Your task to perform on an android device: toggle show notifications on the lock screen Image 0: 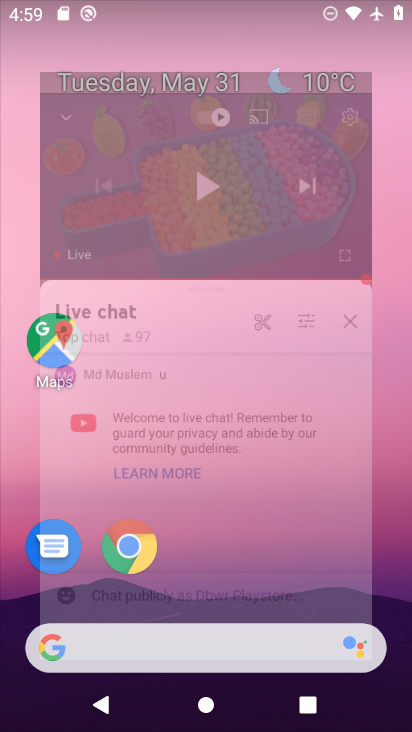
Step 0: drag from (276, 563) to (142, 4)
Your task to perform on an android device: toggle show notifications on the lock screen Image 1: 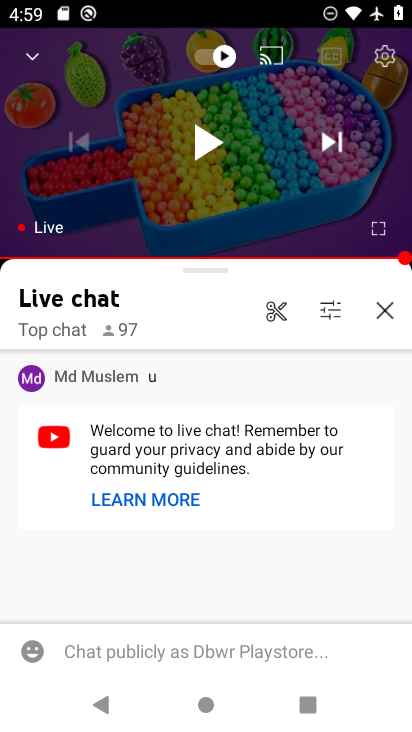
Step 1: press home button
Your task to perform on an android device: toggle show notifications on the lock screen Image 2: 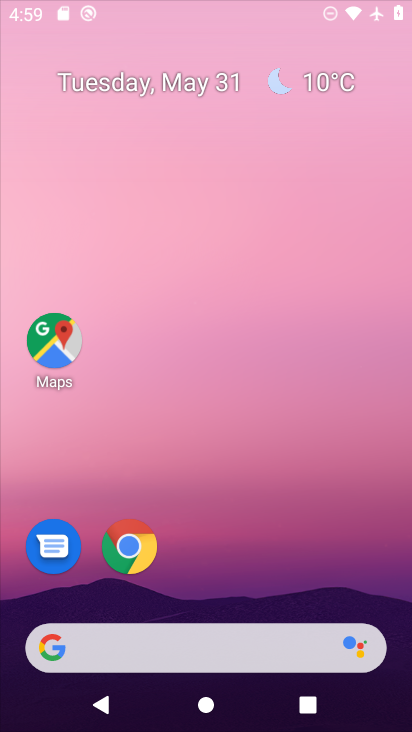
Step 2: drag from (308, 543) to (156, 25)
Your task to perform on an android device: toggle show notifications on the lock screen Image 3: 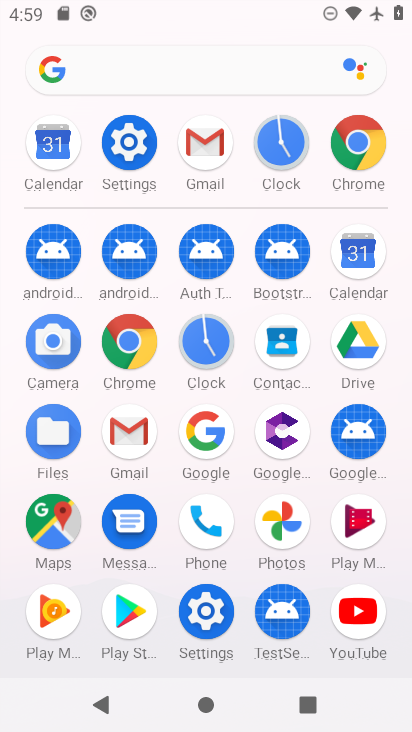
Step 3: click (143, 165)
Your task to perform on an android device: toggle show notifications on the lock screen Image 4: 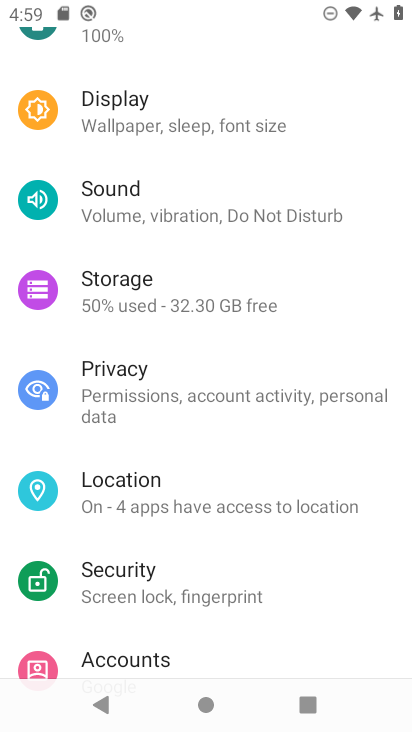
Step 4: drag from (220, 132) to (212, 615)
Your task to perform on an android device: toggle show notifications on the lock screen Image 5: 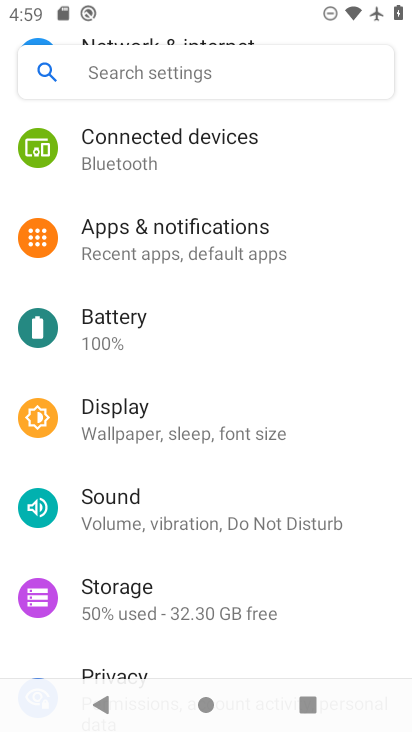
Step 5: click (147, 239)
Your task to perform on an android device: toggle show notifications on the lock screen Image 6: 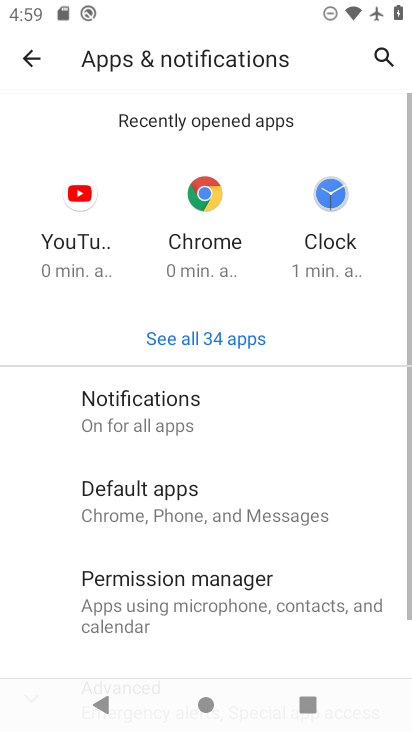
Step 6: click (147, 396)
Your task to perform on an android device: toggle show notifications on the lock screen Image 7: 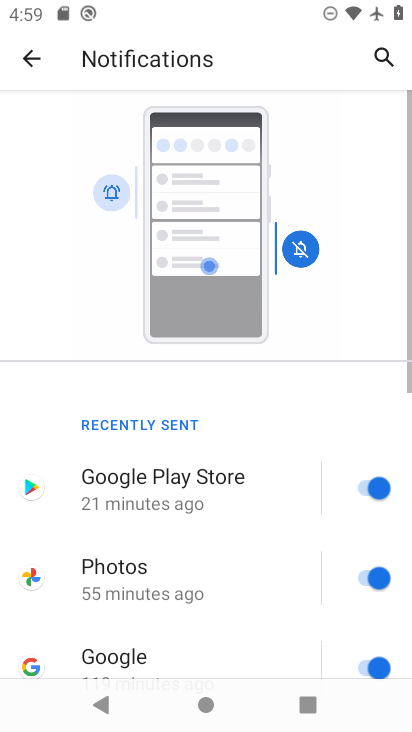
Step 7: drag from (165, 609) to (143, 203)
Your task to perform on an android device: toggle show notifications on the lock screen Image 8: 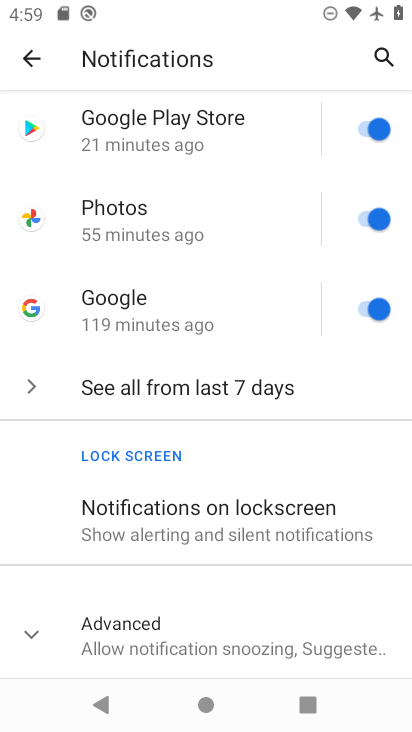
Step 8: click (174, 536)
Your task to perform on an android device: toggle show notifications on the lock screen Image 9: 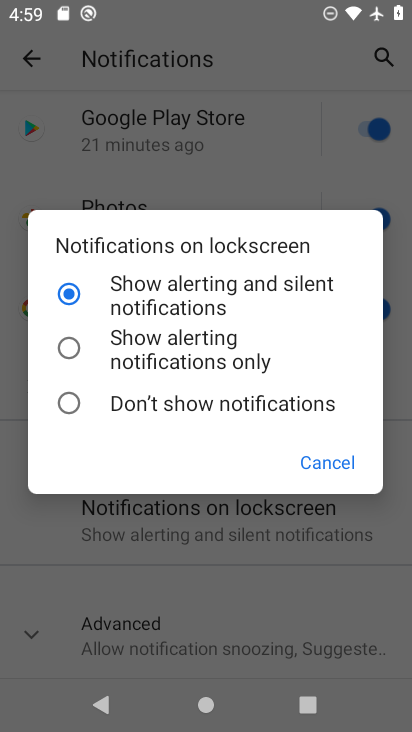
Step 9: click (146, 399)
Your task to perform on an android device: toggle show notifications on the lock screen Image 10: 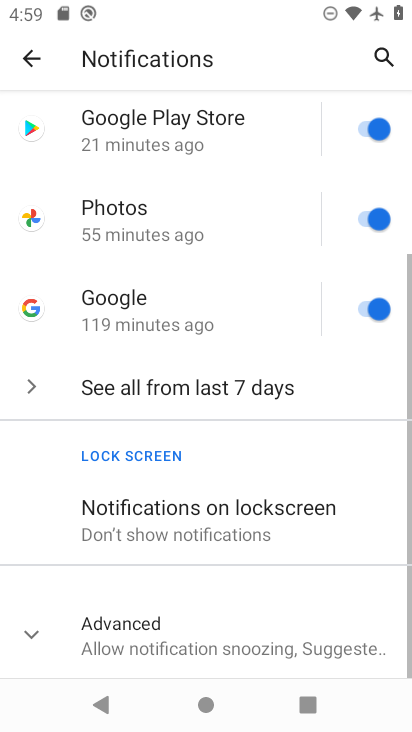
Step 10: task complete